Your task to perform on an android device: add a contact Image 0: 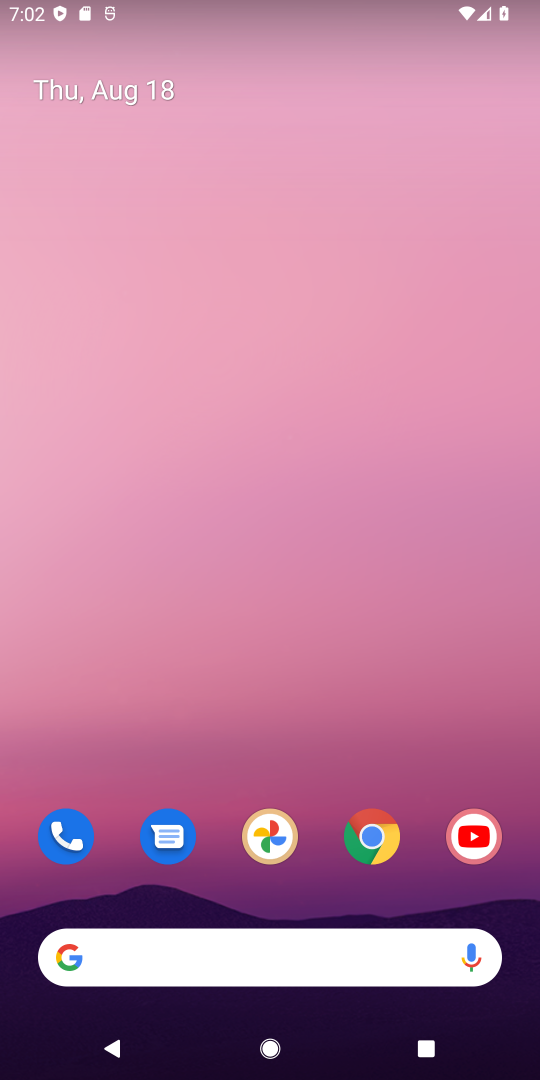
Step 0: drag from (389, 724) to (276, 107)
Your task to perform on an android device: add a contact Image 1: 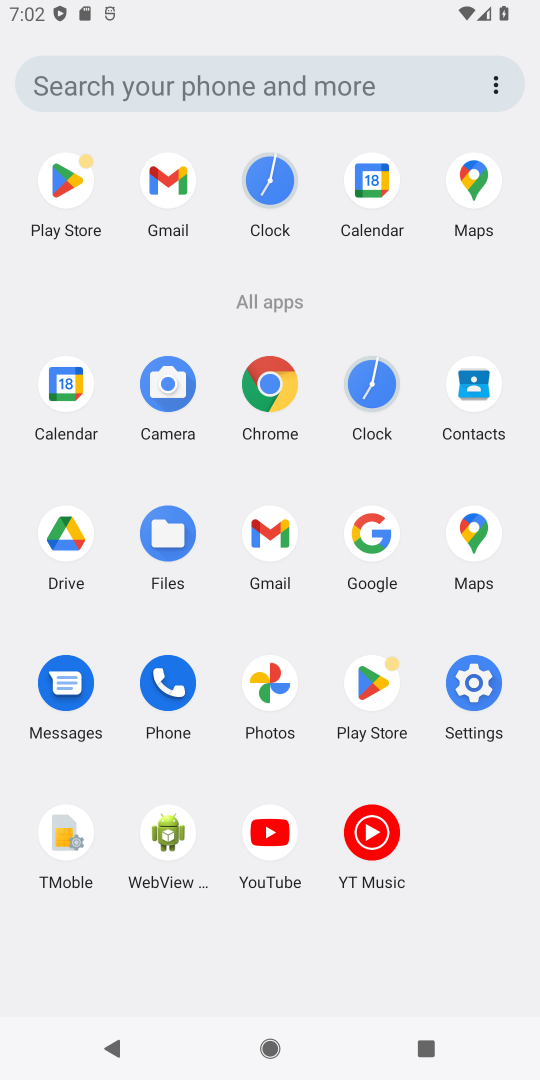
Step 1: click (496, 383)
Your task to perform on an android device: add a contact Image 2: 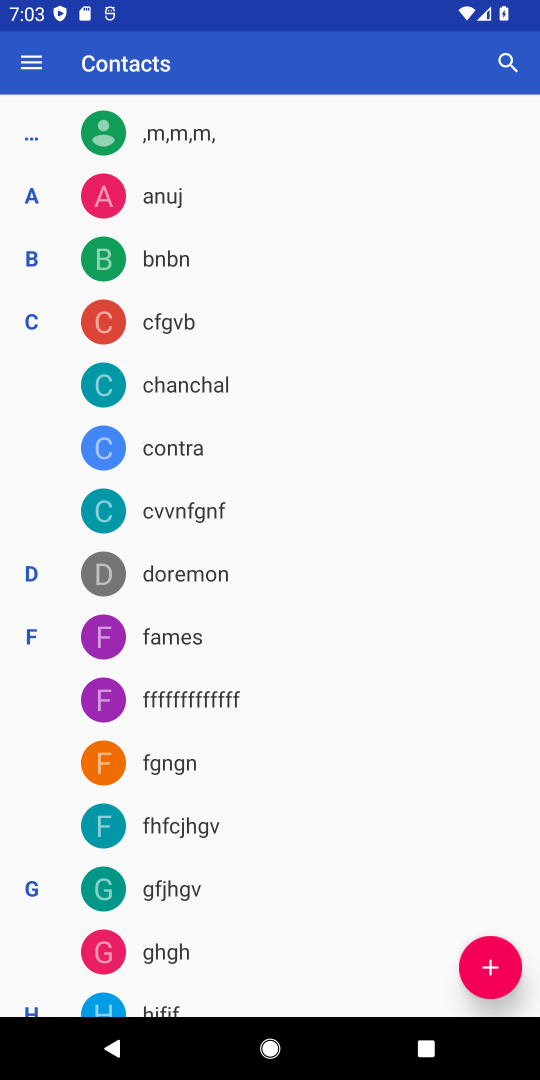
Step 2: click (477, 952)
Your task to perform on an android device: add a contact Image 3: 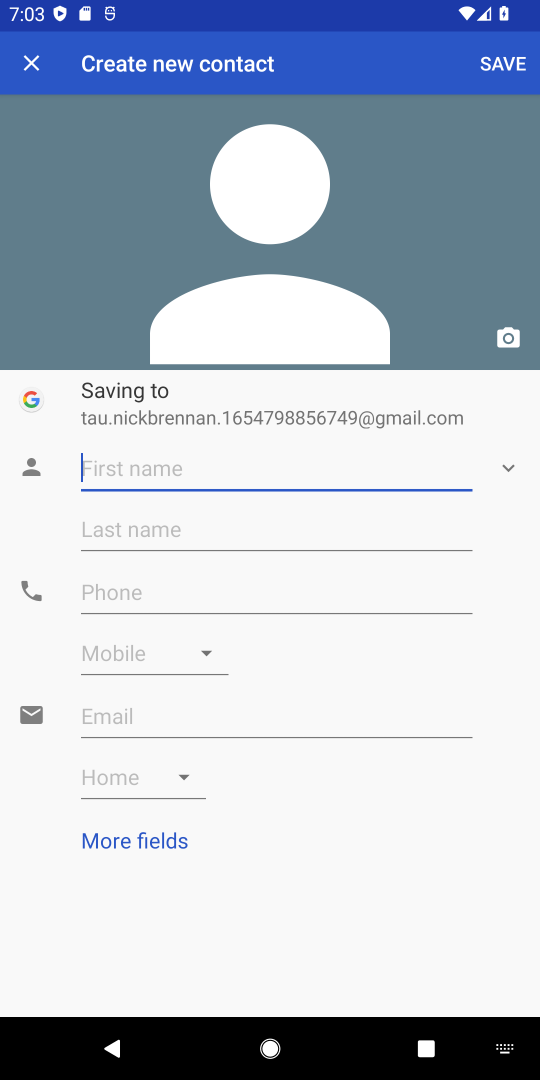
Step 3: type "nol"
Your task to perform on an android device: add a contact Image 4: 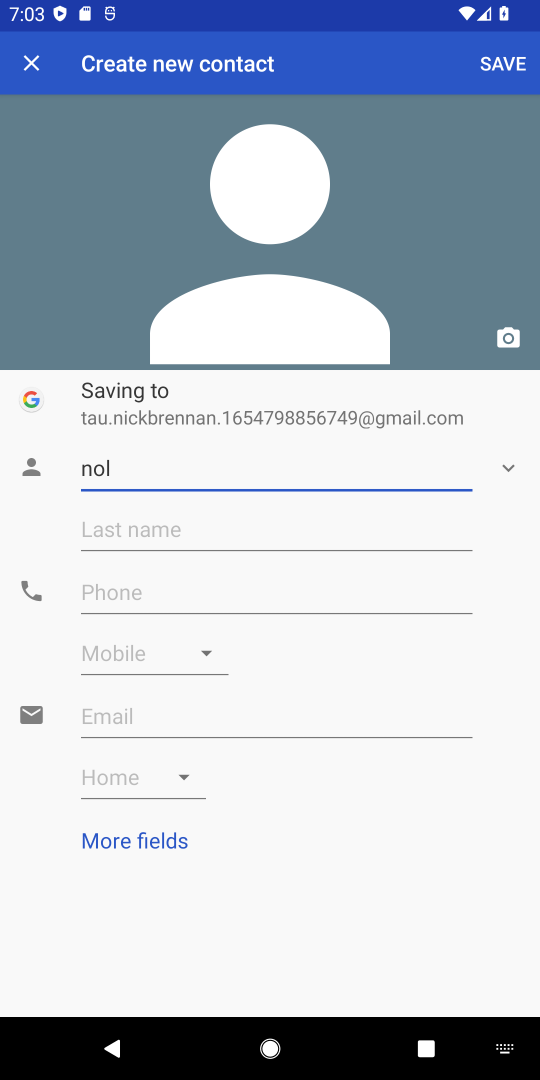
Step 4: click (493, 74)
Your task to perform on an android device: add a contact Image 5: 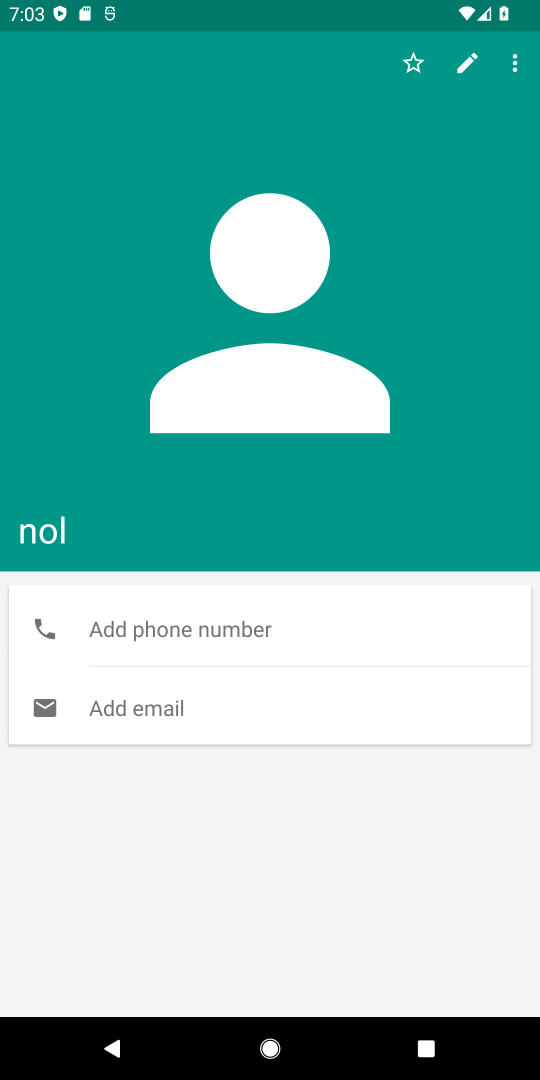
Step 5: task complete